Your task to perform on an android device: Is it going to rain today? Image 0: 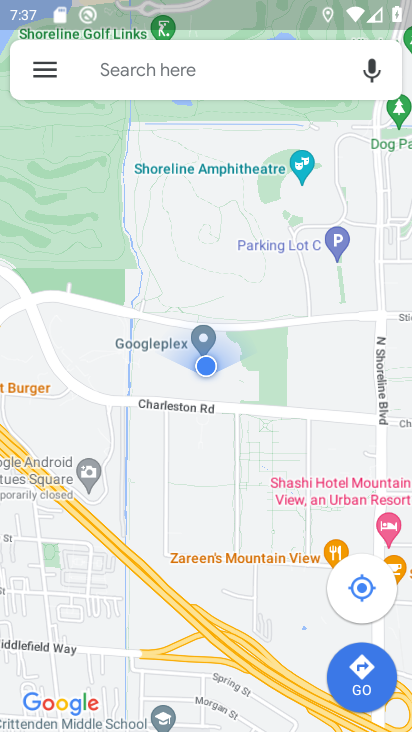
Step 0: press home button
Your task to perform on an android device: Is it going to rain today? Image 1: 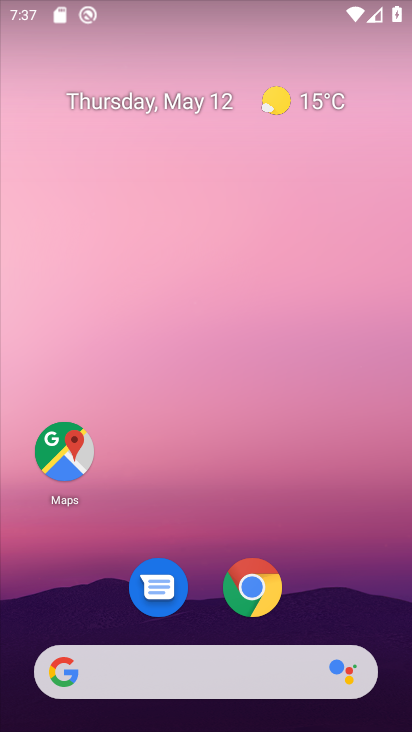
Step 1: click (256, 601)
Your task to perform on an android device: Is it going to rain today? Image 2: 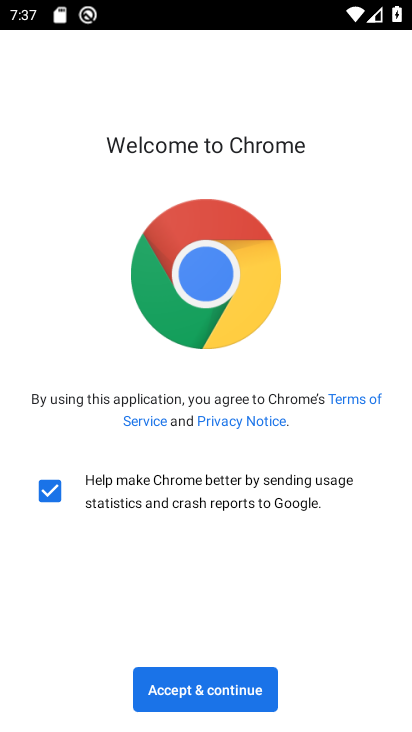
Step 2: press home button
Your task to perform on an android device: Is it going to rain today? Image 3: 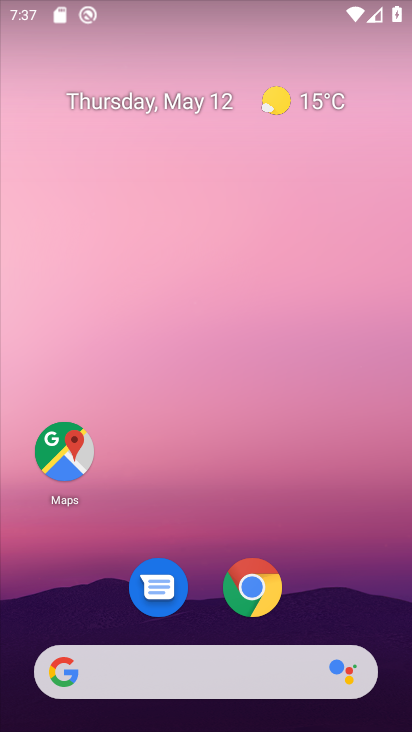
Step 3: click (128, 657)
Your task to perform on an android device: Is it going to rain today? Image 4: 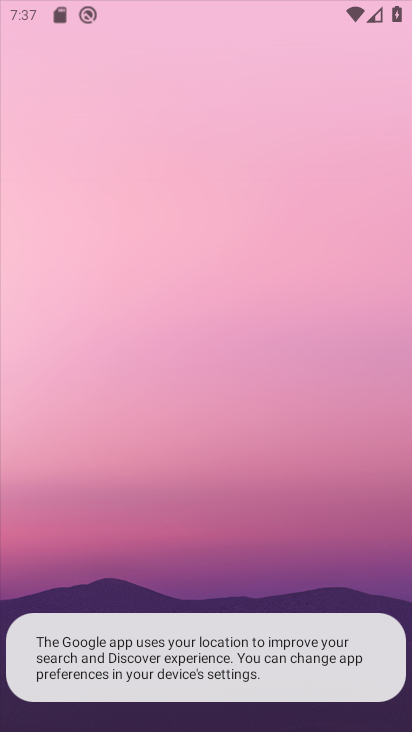
Step 4: click (128, 657)
Your task to perform on an android device: Is it going to rain today? Image 5: 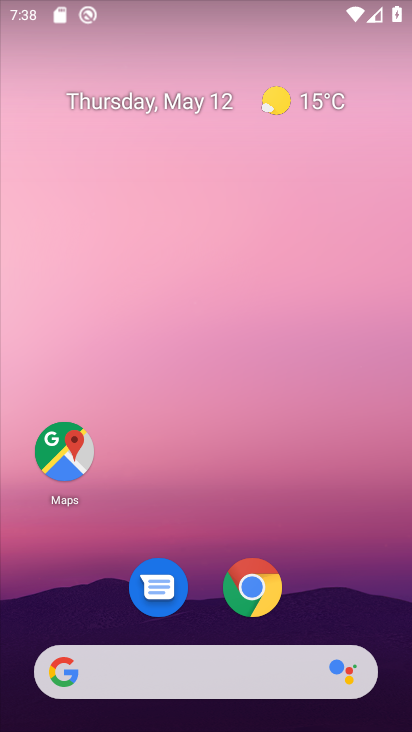
Step 5: type "Is it going to rain to"
Your task to perform on an android device: Is it going to rain today? Image 6: 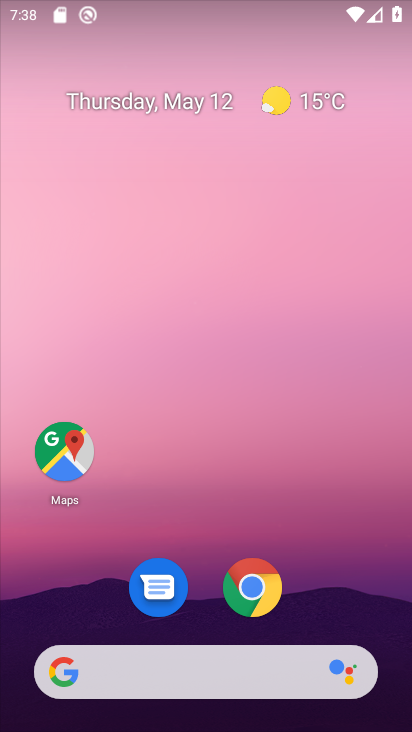
Step 6: click (202, 657)
Your task to perform on an android device: Is it going to rain today? Image 7: 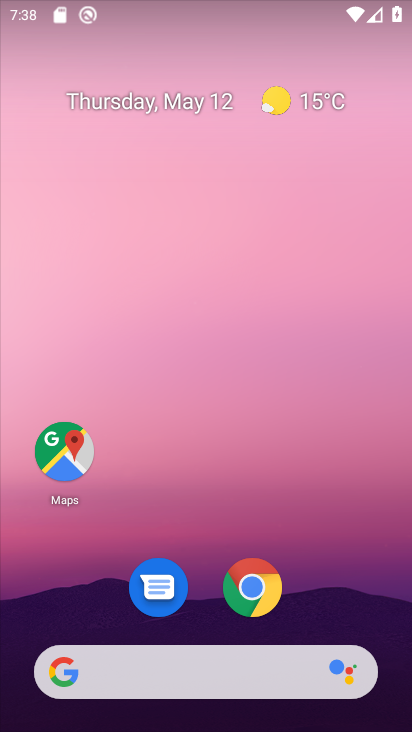
Step 7: click (201, 658)
Your task to perform on an android device: Is it going to rain today? Image 8: 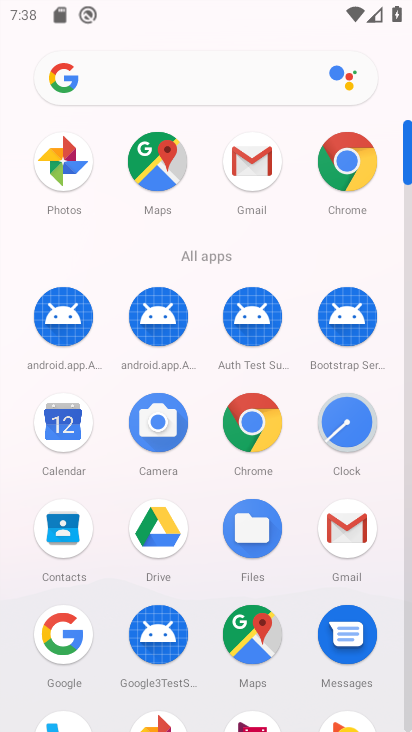
Step 8: type "Is it "
Your task to perform on an android device: Is it going to rain today? Image 9: 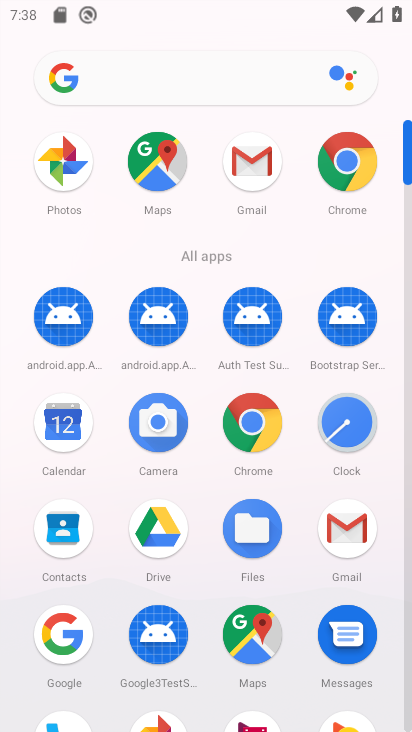
Step 9: task complete